Your task to perform on an android device: Open notification settings Image 0: 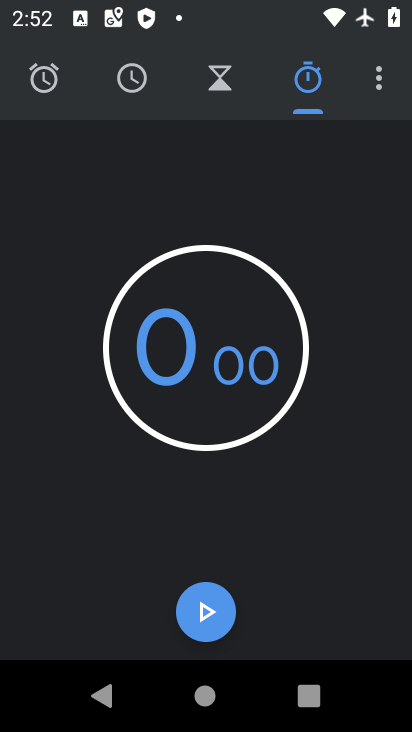
Step 0: press home button
Your task to perform on an android device: Open notification settings Image 1: 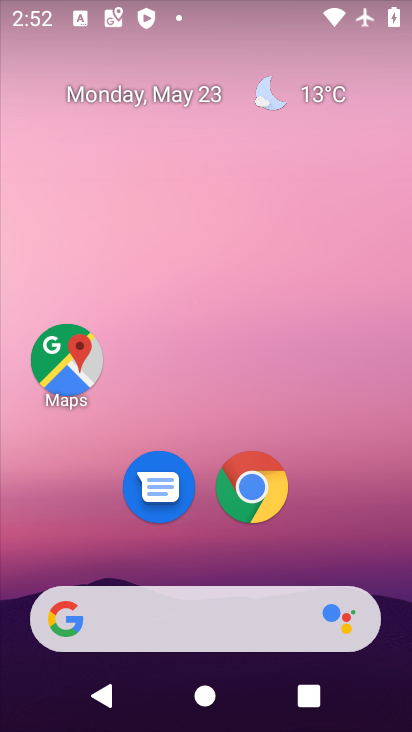
Step 1: drag from (408, 616) to (265, 103)
Your task to perform on an android device: Open notification settings Image 2: 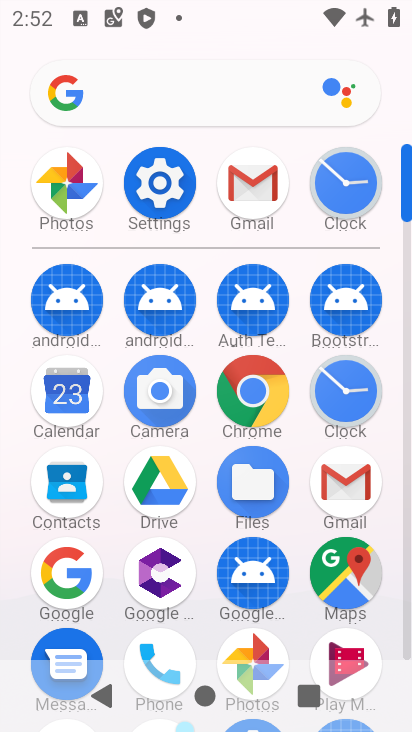
Step 2: click (410, 636)
Your task to perform on an android device: Open notification settings Image 3: 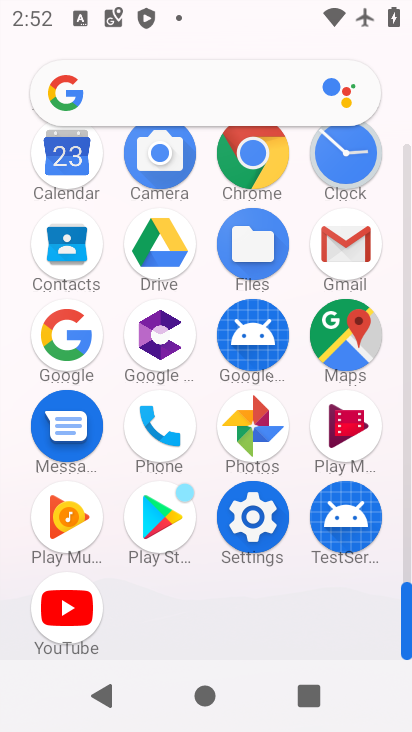
Step 3: click (254, 517)
Your task to perform on an android device: Open notification settings Image 4: 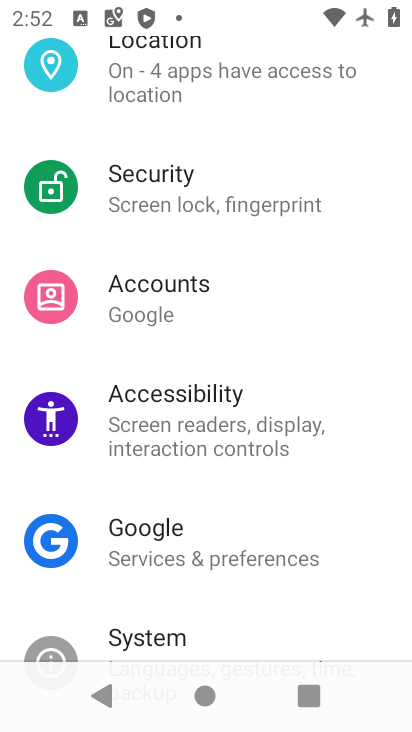
Step 4: drag from (347, 73) to (281, 469)
Your task to perform on an android device: Open notification settings Image 5: 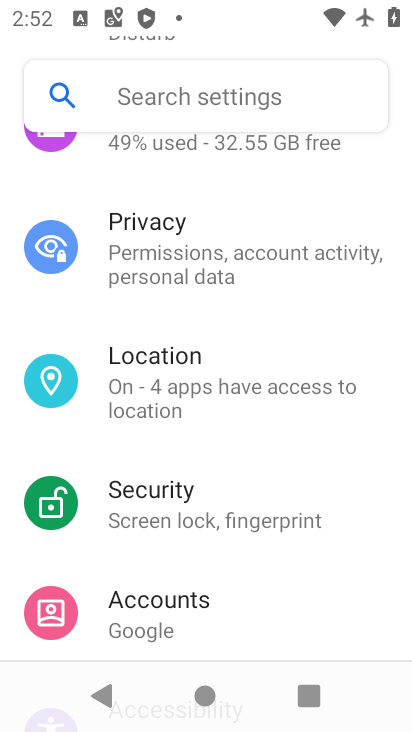
Step 5: drag from (277, 135) to (220, 489)
Your task to perform on an android device: Open notification settings Image 6: 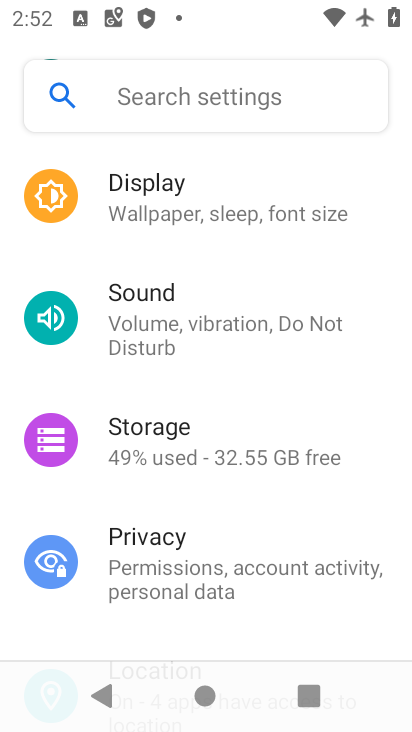
Step 6: drag from (296, 201) to (283, 537)
Your task to perform on an android device: Open notification settings Image 7: 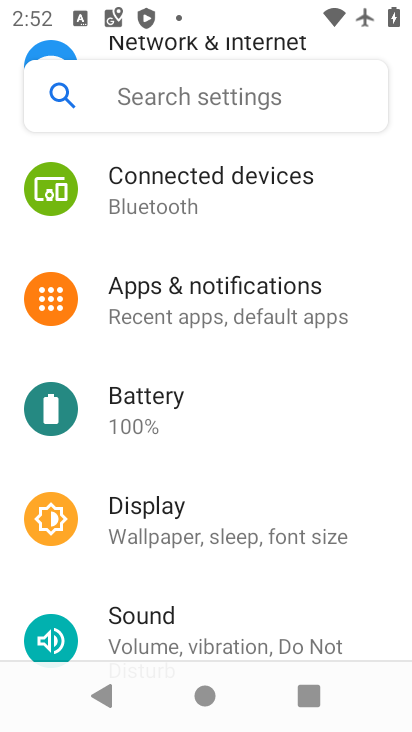
Step 7: click (158, 284)
Your task to perform on an android device: Open notification settings Image 8: 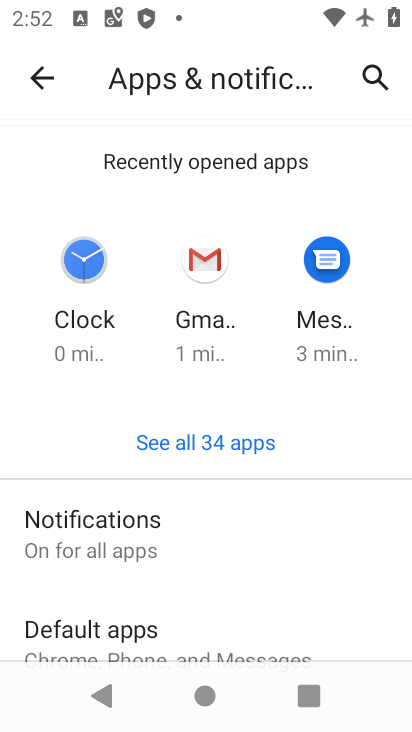
Step 8: click (98, 543)
Your task to perform on an android device: Open notification settings Image 9: 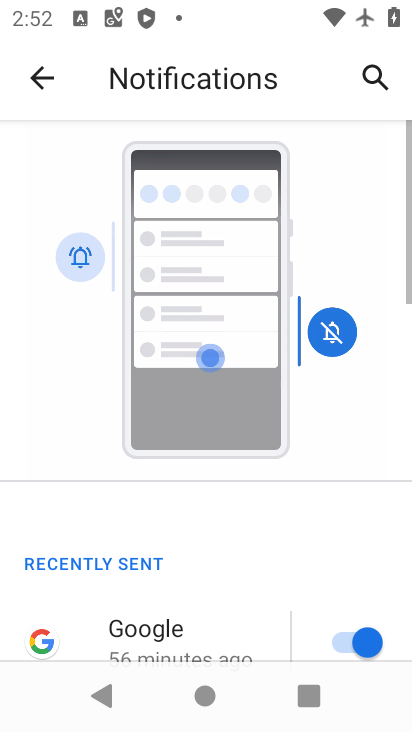
Step 9: drag from (98, 543) to (145, 162)
Your task to perform on an android device: Open notification settings Image 10: 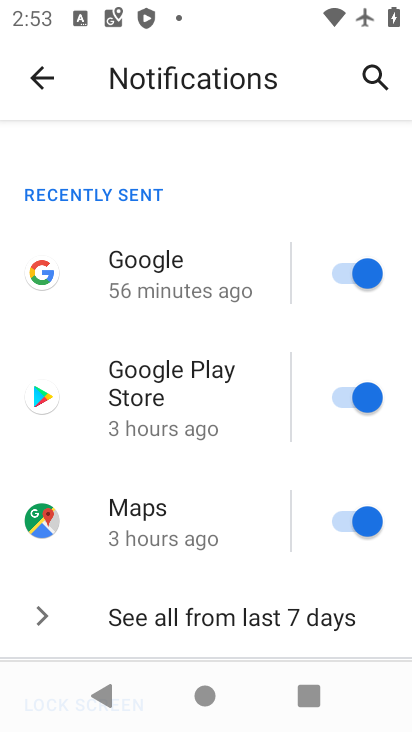
Step 10: drag from (185, 568) to (200, 160)
Your task to perform on an android device: Open notification settings Image 11: 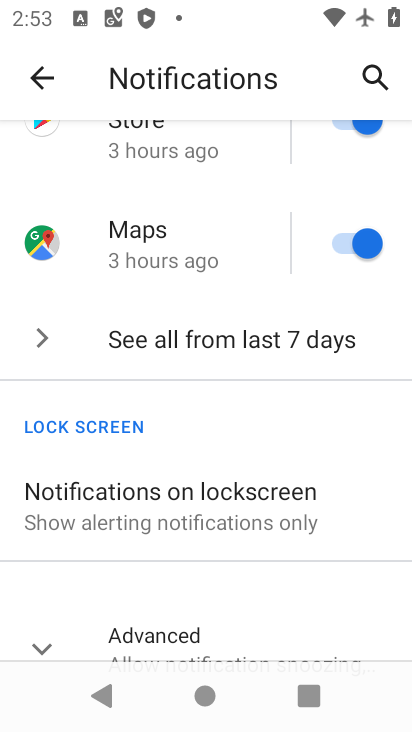
Step 11: drag from (125, 591) to (183, 176)
Your task to perform on an android device: Open notification settings Image 12: 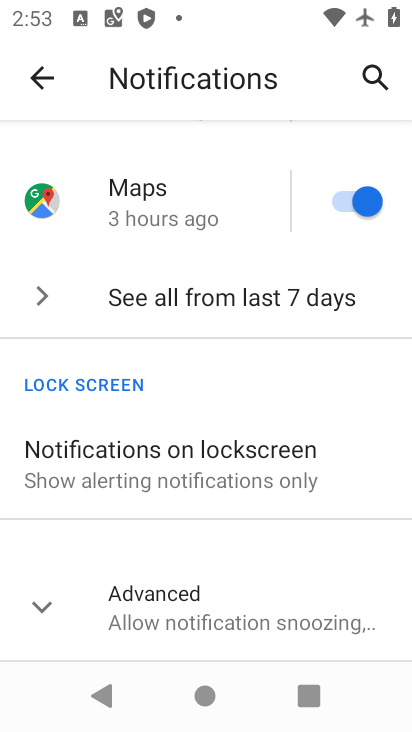
Step 12: click (41, 608)
Your task to perform on an android device: Open notification settings Image 13: 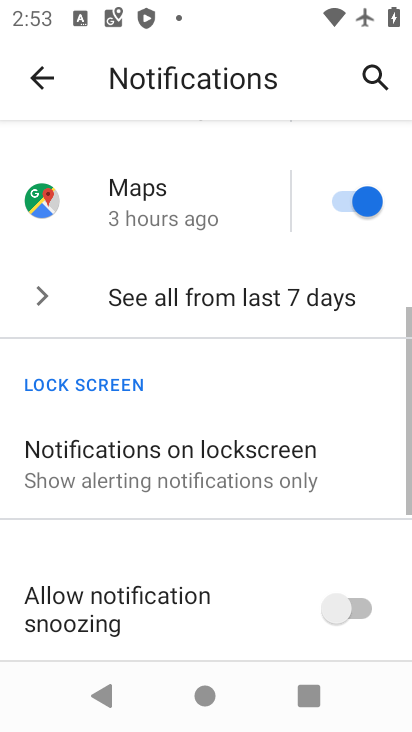
Step 13: task complete